Your task to perform on an android device: Open Wikipedia Image 0: 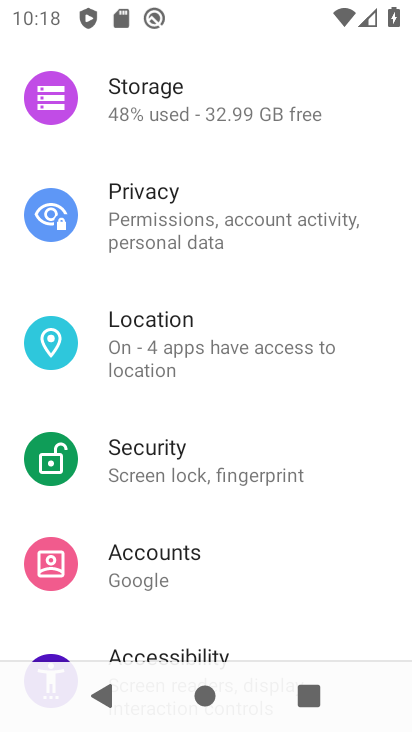
Step 0: press home button
Your task to perform on an android device: Open Wikipedia Image 1: 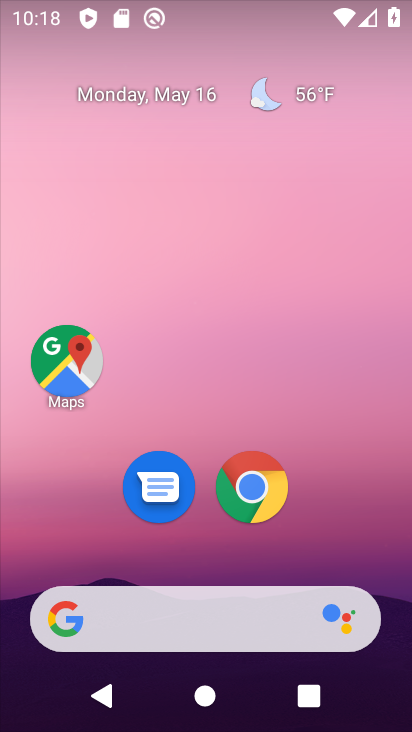
Step 1: click (247, 490)
Your task to perform on an android device: Open Wikipedia Image 2: 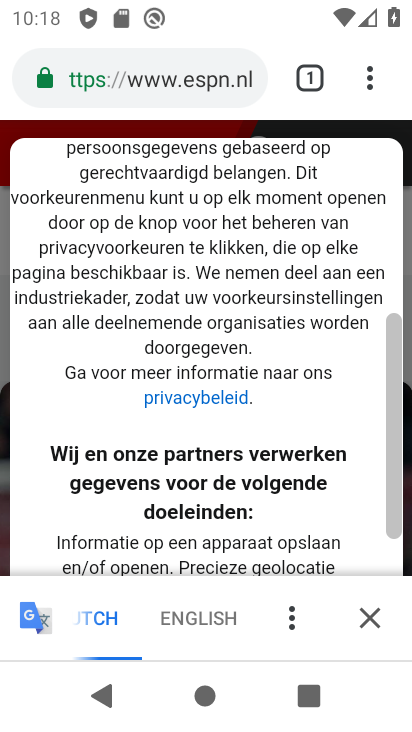
Step 2: press back button
Your task to perform on an android device: Open Wikipedia Image 3: 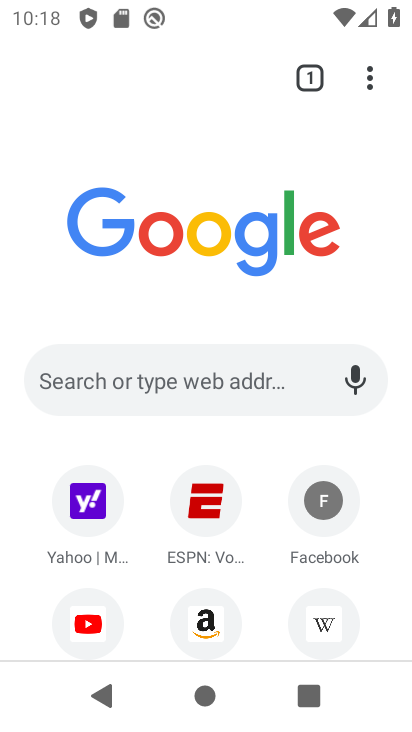
Step 3: click (329, 617)
Your task to perform on an android device: Open Wikipedia Image 4: 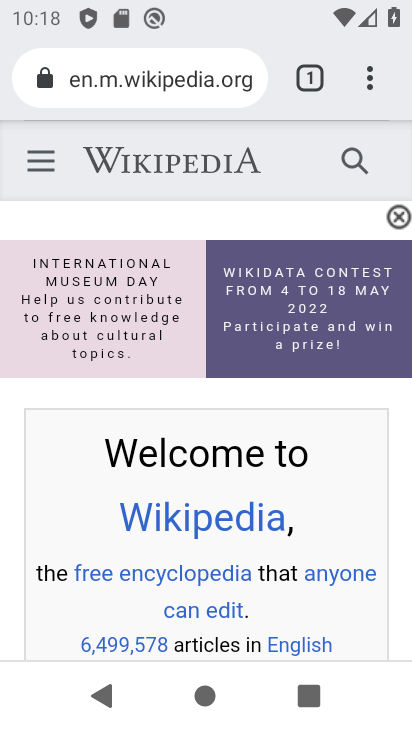
Step 4: task complete